Your task to perform on an android device: check out phone information Image 0: 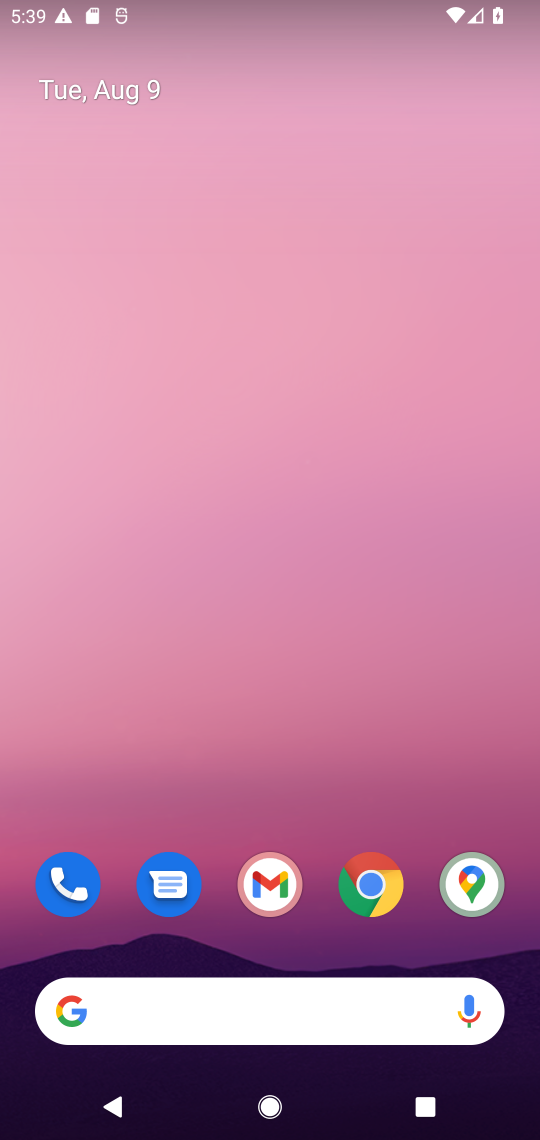
Step 0: click (254, 93)
Your task to perform on an android device: check out phone information Image 1: 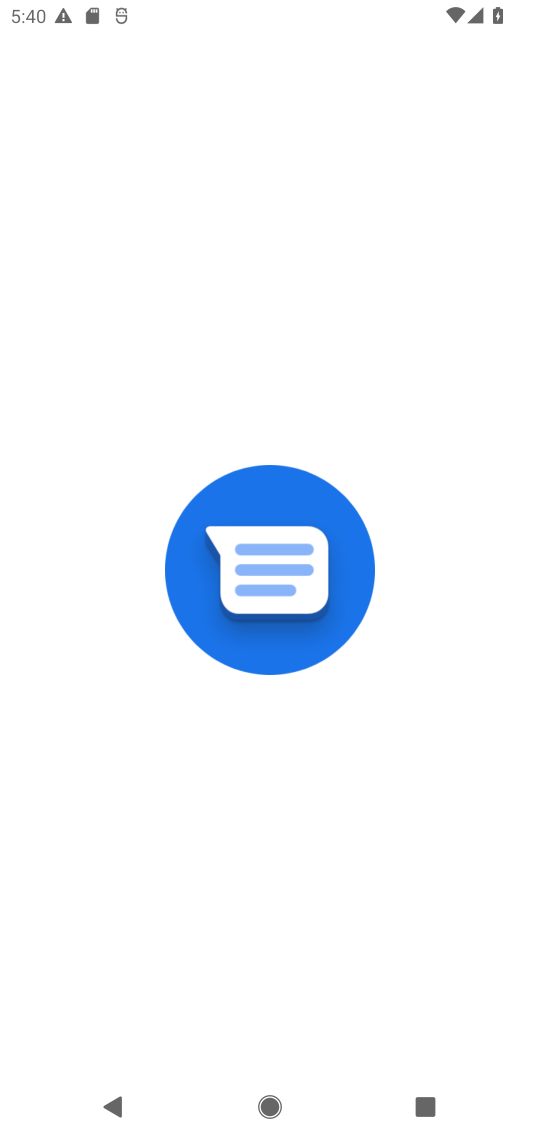
Step 1: press home button
Your task to perform on an android device: check out phone information Image 2: 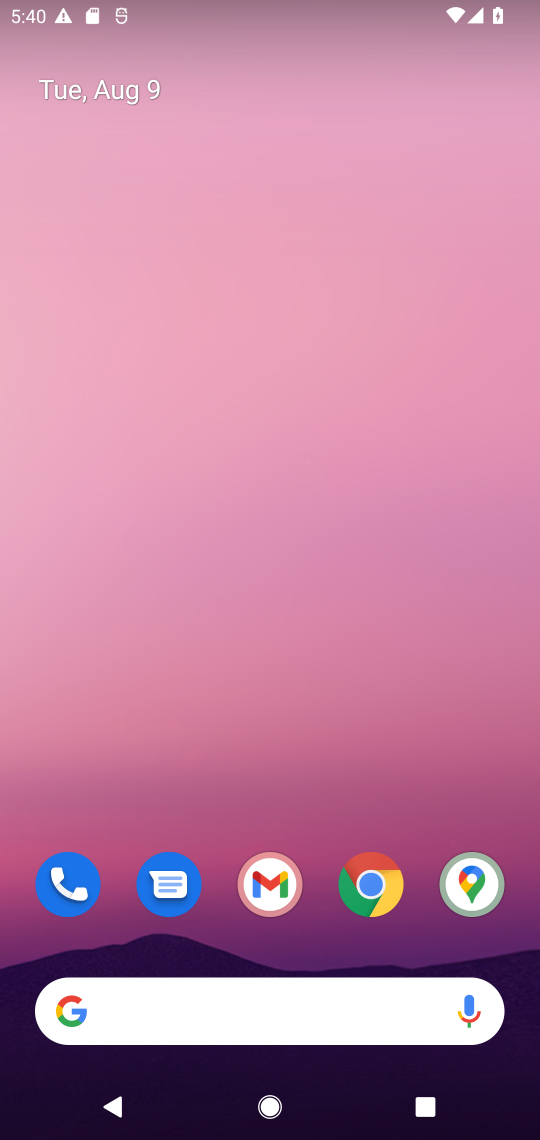
Step 2: drag from (216, 1020) to (224, 177)
Your task to perform on an android device: check out phone information Image 3: 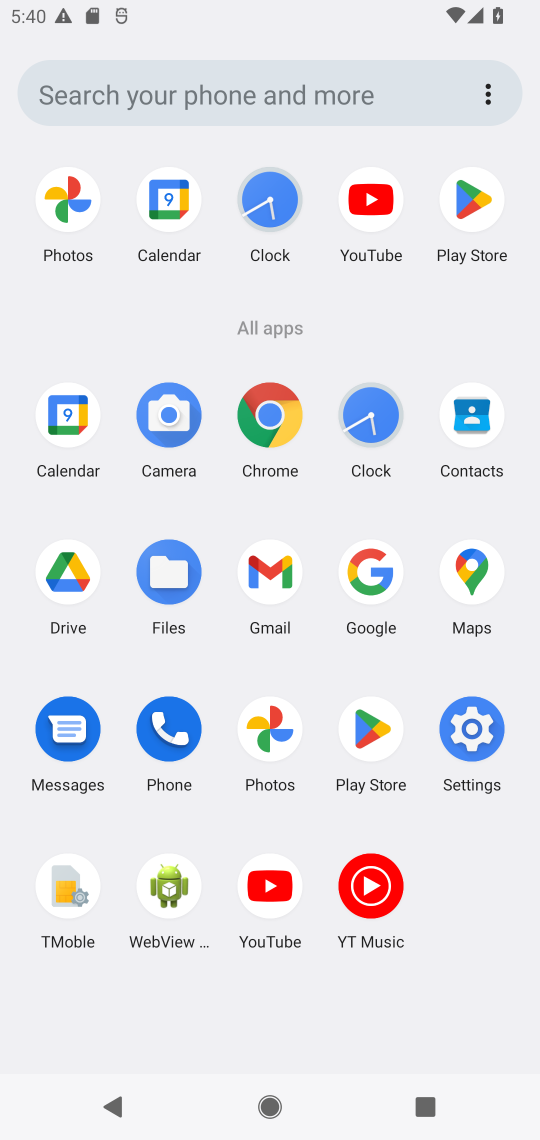
Step 3: click (471, 729)
Your task to perform on an android device: check out phone information Image 4: 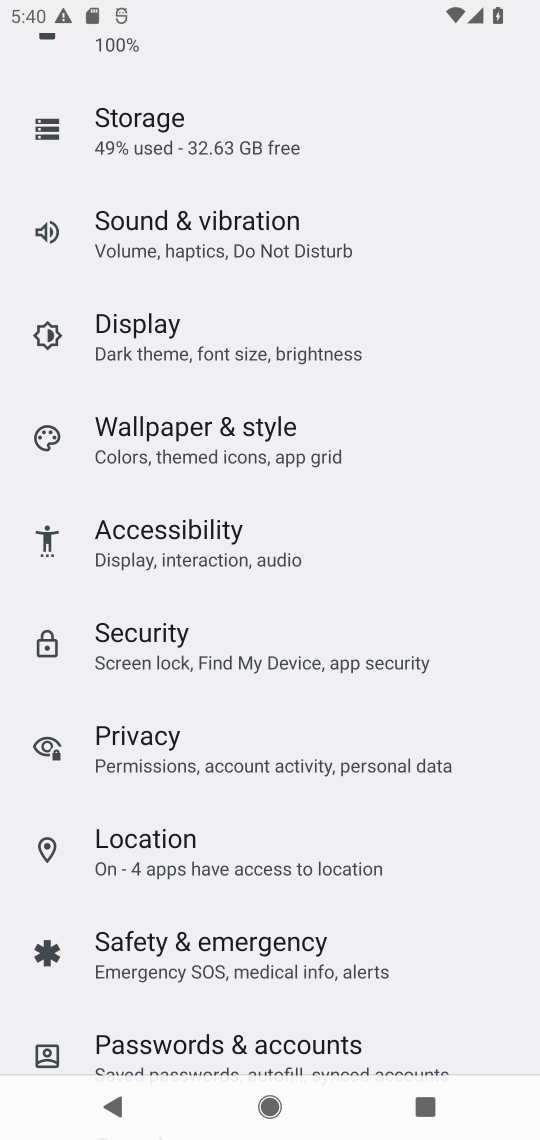
Step 4: drag from (241, 816) to (399, 506)
Your task to perform on an android device: check out phone information Image 5: 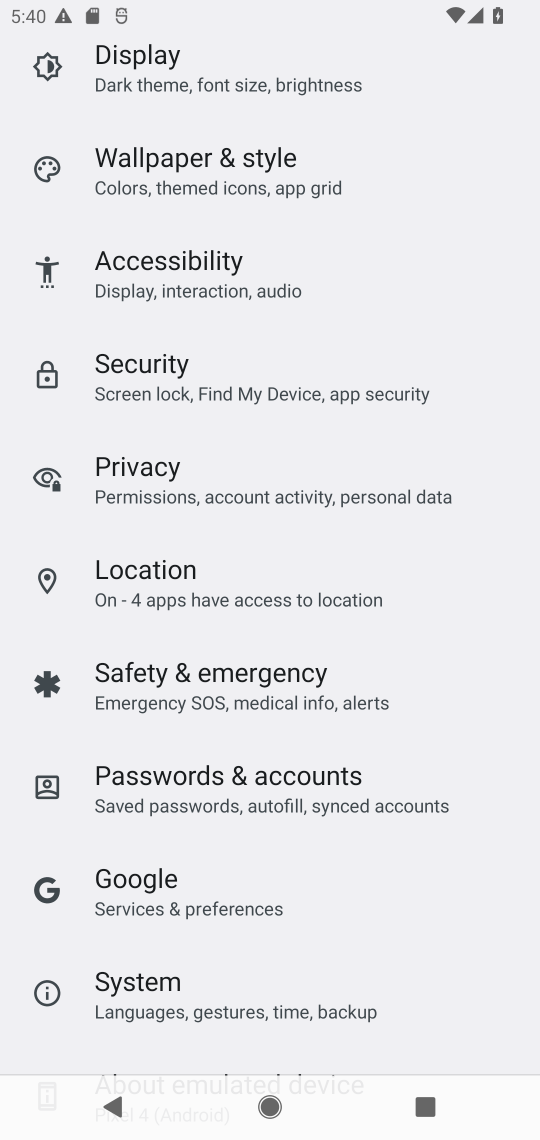
Step 5: drag from (202, 949) to (357, 692)
Your task to perform on an android device: check out phone information Image 6: 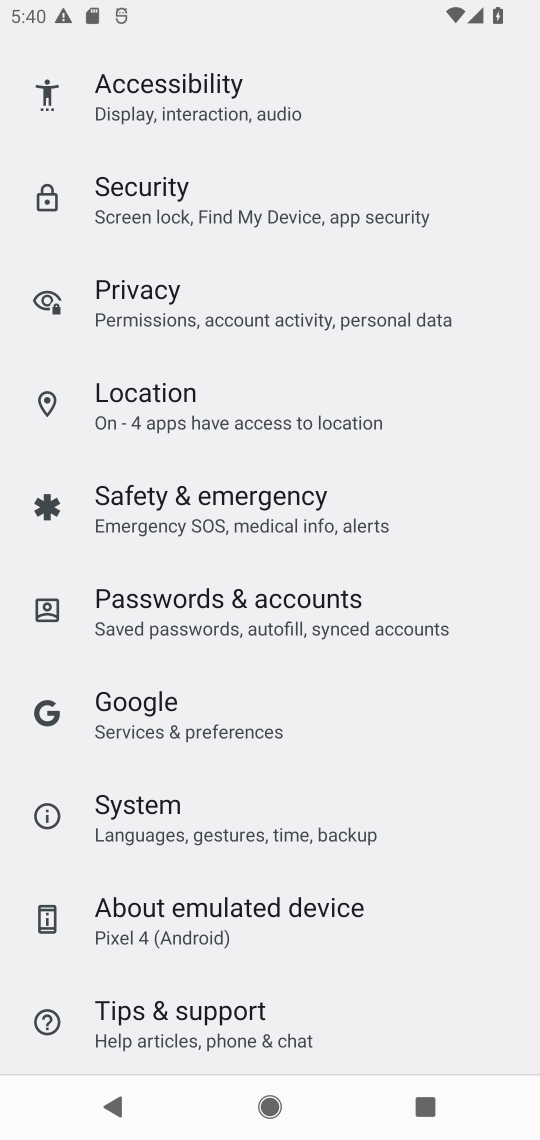
Step 6: click (216, 916)
Your task to perform on an android device: check out phone information Image 7: 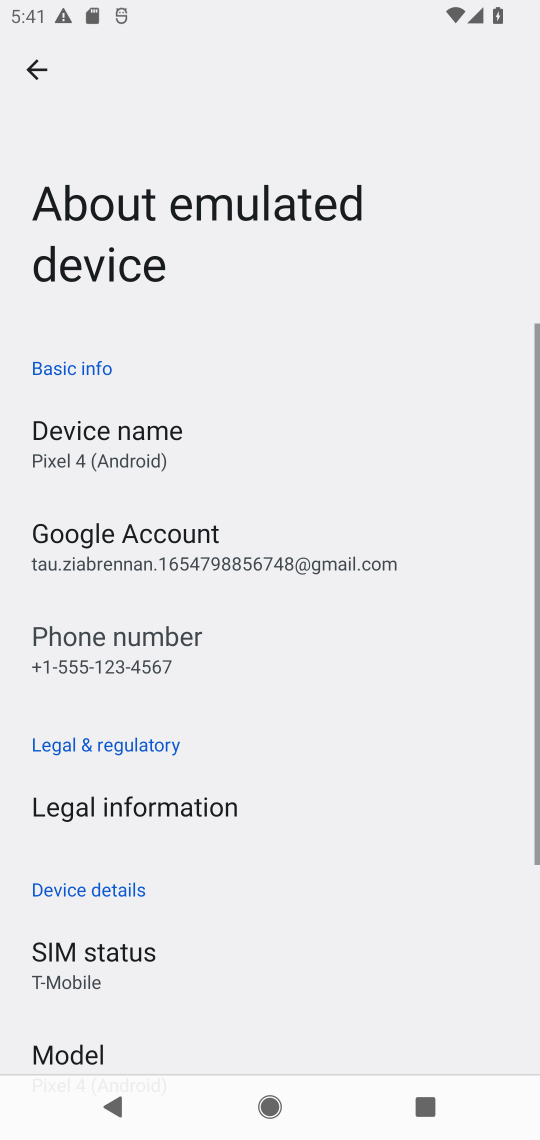
Step 7: task complete